Your task to perform on an android device: move a message to another label in the gmail app Image 0: 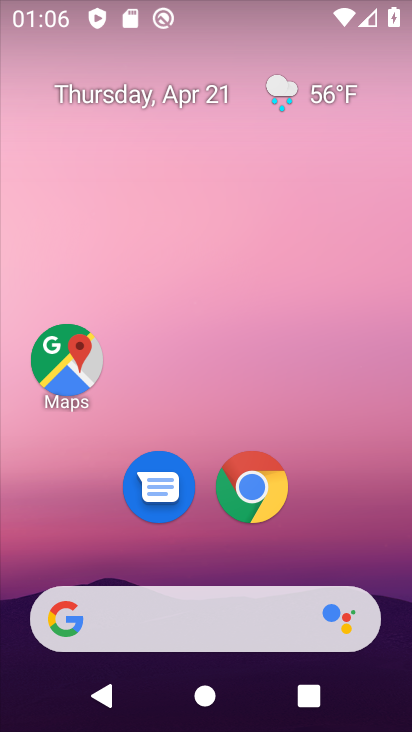
Step 0: drag from (185, 559) to (190, 150)
Your task to perform on an android device: move a message to another label in the gmail app Image 1: 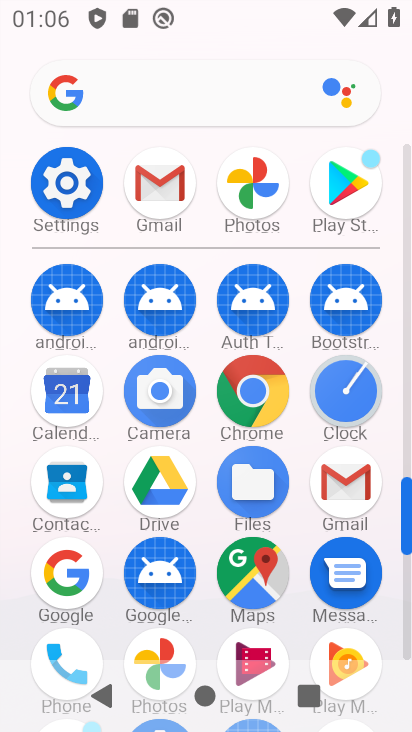
Step 1: click (140, 187)
Your task to perform on an android device: move a message to another label in the gmail app Image 2: 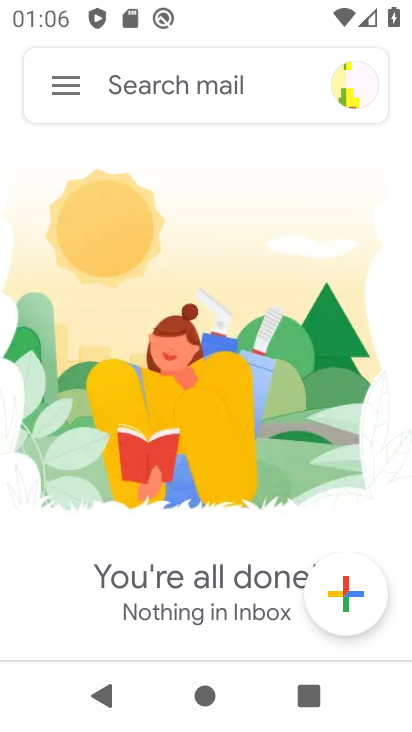
Step 2: click (70, 102)
Your task to perform on an android device: move a message to another label in the gmail app Image 3: 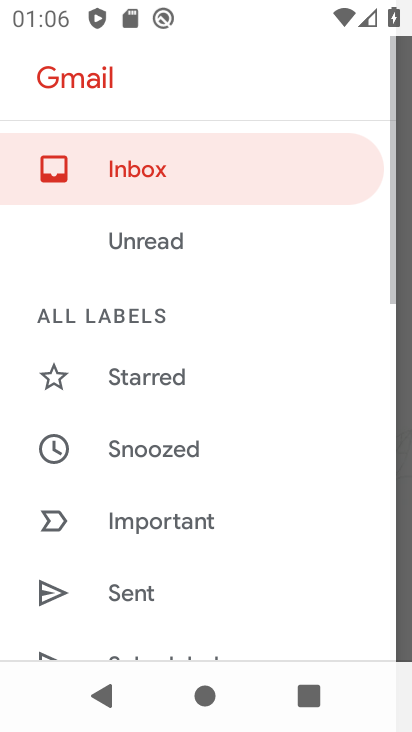
Step 3: drag from (155, 512) to (153, 425)
Your task to perform on an android device: move a message to another label in the gmail app Image 4: 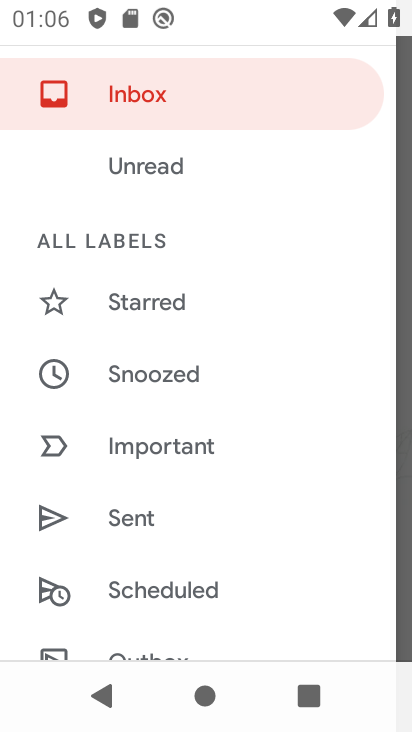
Step 4: drag from (161, 545) to (147, 485)
Your task to perform on an android device: move a message to another label in the gmail app Image 5: 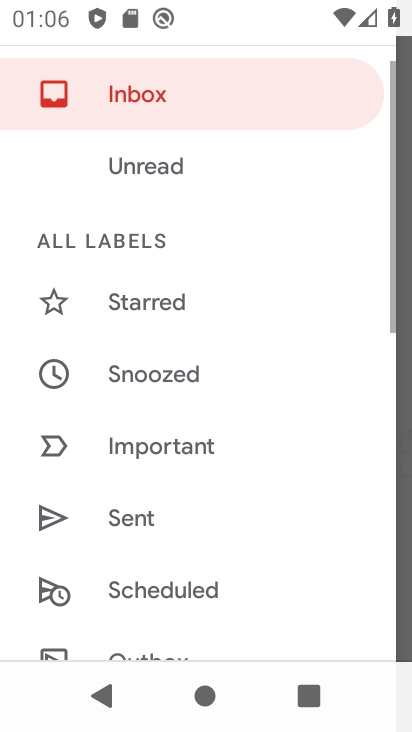
Step 5: drag from (168, 592) to (154, 513)
Your task to perform on an android device: move a message to another label in the gmail app Image 6: 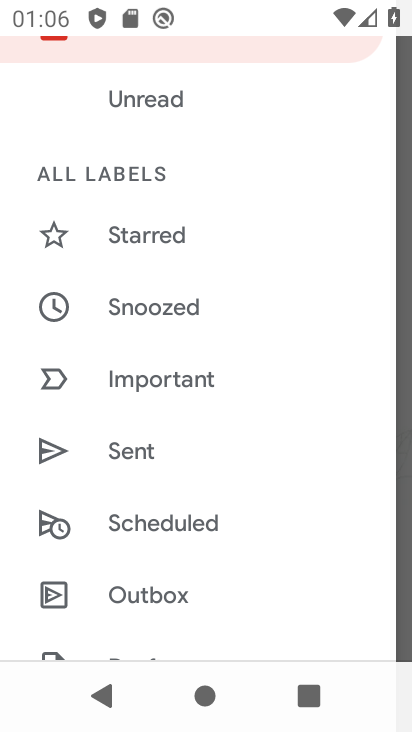
Step 6: drag from (171, 605) to (158, 514)
Your task to perform on an android device: move a message to another label in the gmail app Image 7: 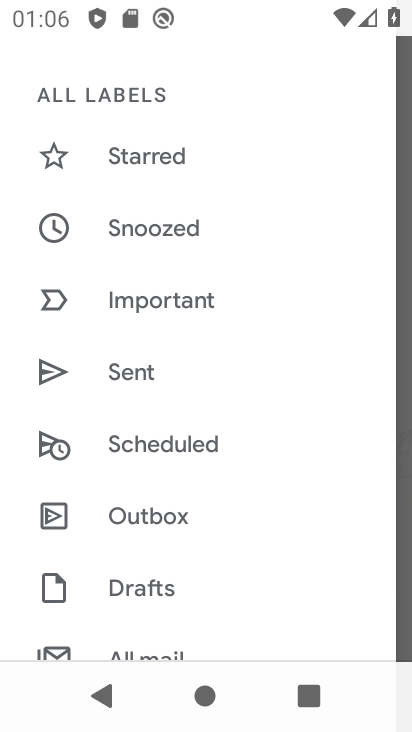
Step 7: drag from (169, 579) to (156, 526)
Your task to perform on an android device: move a message to another label in the gmail app Image 8: 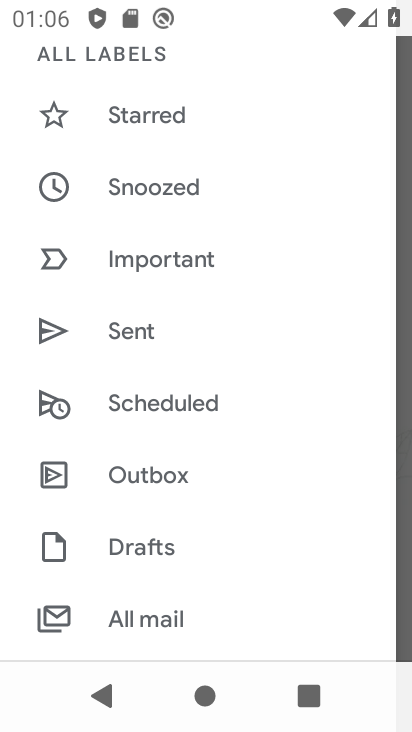
Step 8: click (167, 619)
Your task to perform on an android device: move a message to another label in the gmail app Image 9: 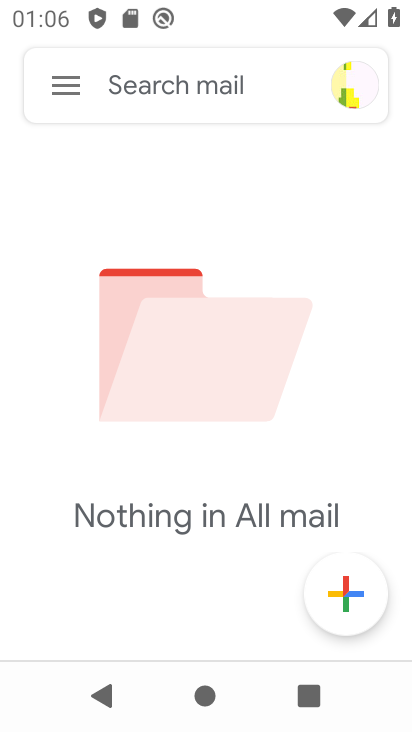
Step 9: task complete